Your task to perform on an android device: turn on notifications settings in the gmail app Image 0: 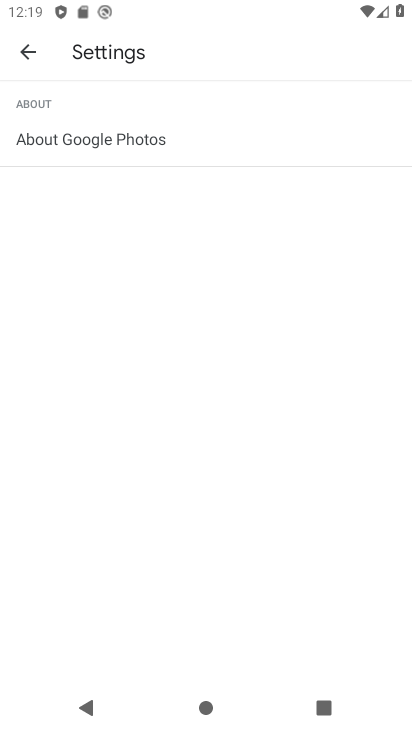
Step 0: press home button
Your task to perform on an android device: turn on notifications settings in the gmail app Image 1: 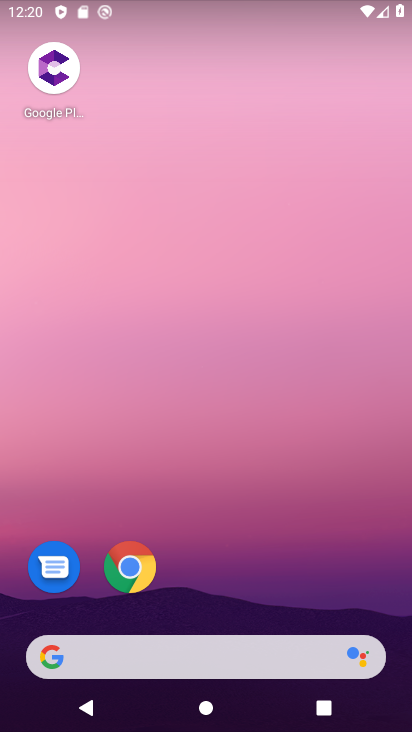
Step 1: drag from (280, 478) to (409, 4)
Your task to perform on an android device: turn on notifications settings in the gmail app Image 2: 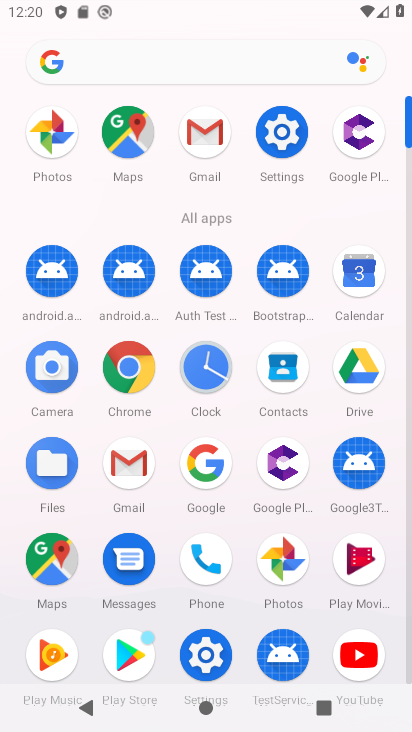
Step 2: click (122, 466)
Your task to perform on an android device: turn on notifications settings in the gmail app Image 3: 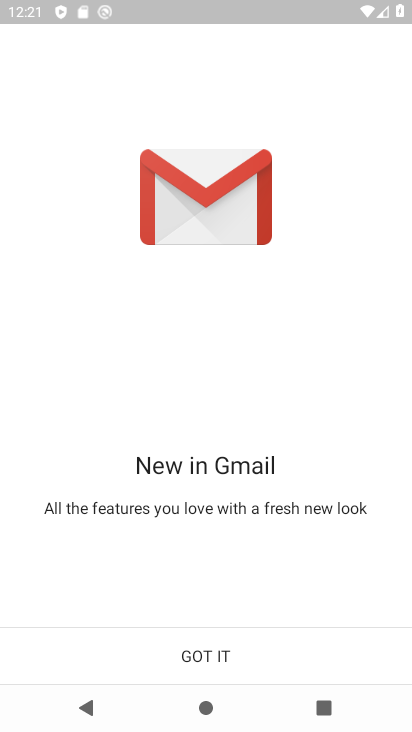
Step 3: click (214, 637)
Your task to perform on an android device: turn on notifications settings in the gmail app Image 4: 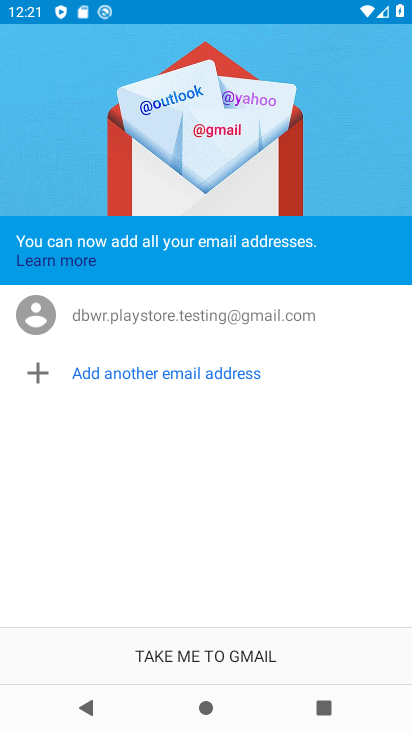
Step 4: click (157, 646)
Your task to perform on an android device: turn on notifications settings in the gmail app Image 5: 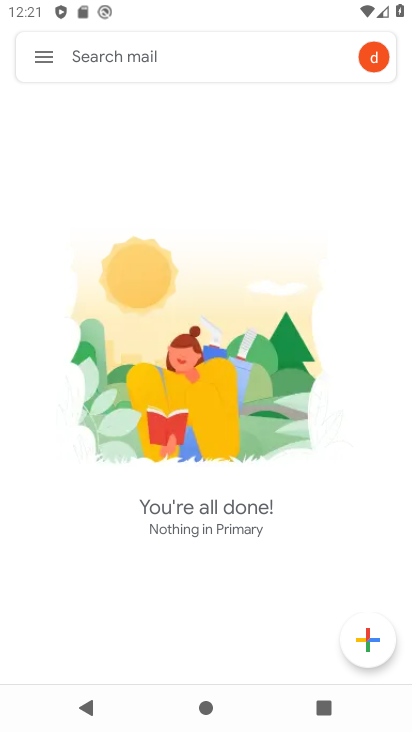
Step 5: click (39, 52)
Your task to perform on an android device: turn on notifications settings in the gmail app Image 6: 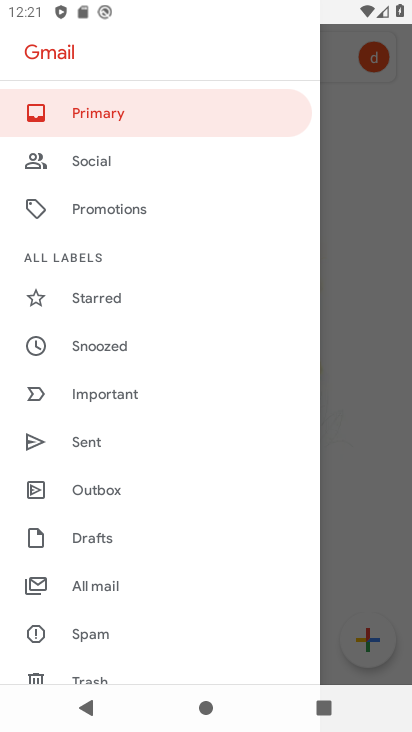
Step 6: drag from (132, 628) to (187, 132)
Your task to perform on an android device: turn on notifications settings in the gmail app Image 7: 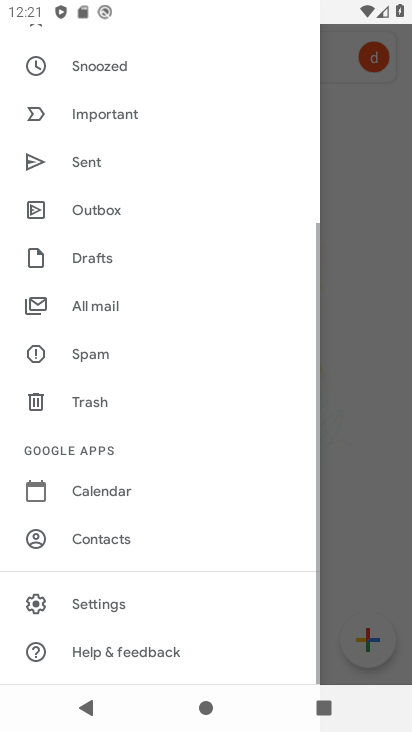
Step 7: click (94, 603)
Your task to perform on an android device: turn on notifications settings in the gmail app Image 8: 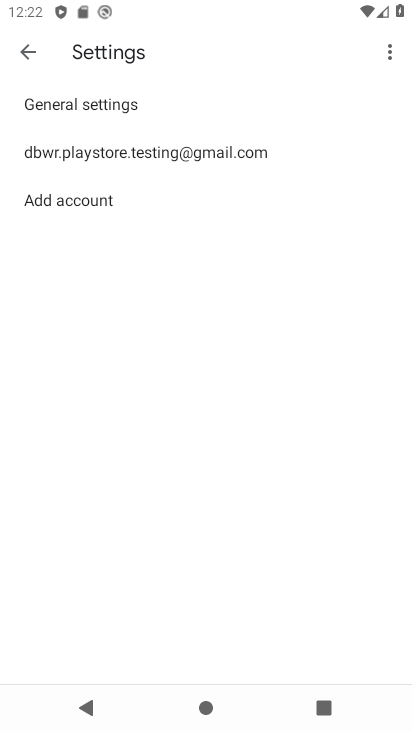
Step 8: click (53, 148)
Your task to perform on an android device: turn on notifications settings in the gmail app Image 9: 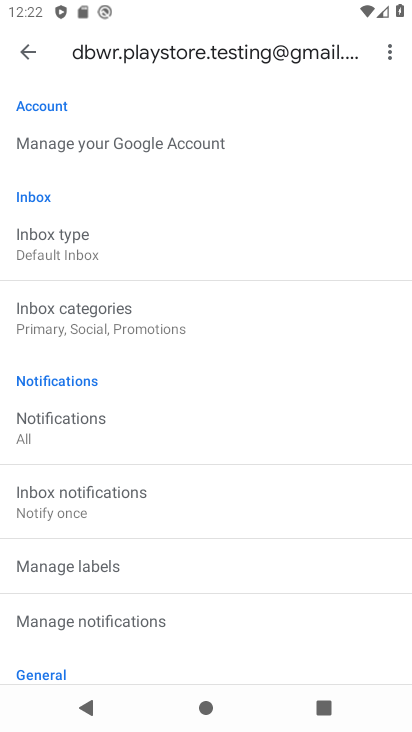
Step 9: click (78, 622)
Your task to perform on an android device: turn on notifications settings in the gmail app Image 10: 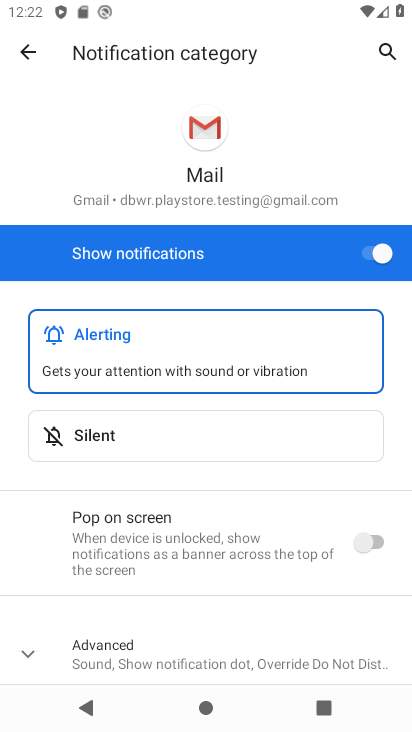
Step 10: task complete